Your task to perform on an android device: Go to Wikipedia Image 0: 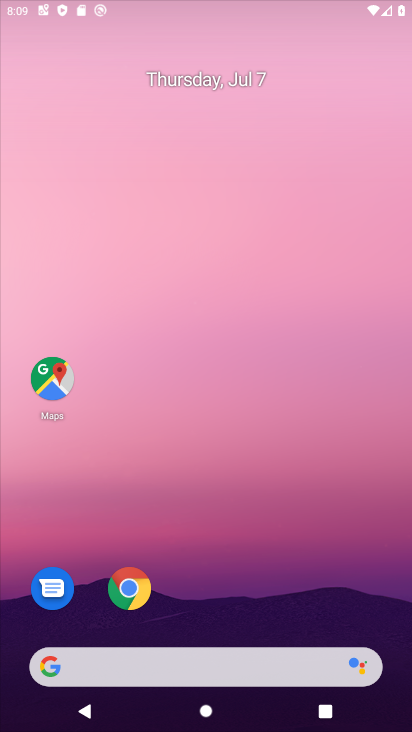
Step 0: drag from (200, 508) to (214, 379)
Your task to perform on an android device: Go to Wikipedia Image 1: 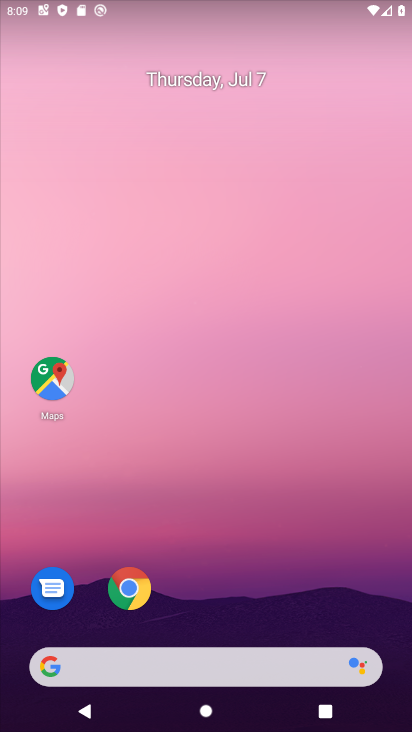
Step 1: drag from (242, 585) to (255, 69)
Your task to perform on an android device: Go to Wikipedia Image 2: 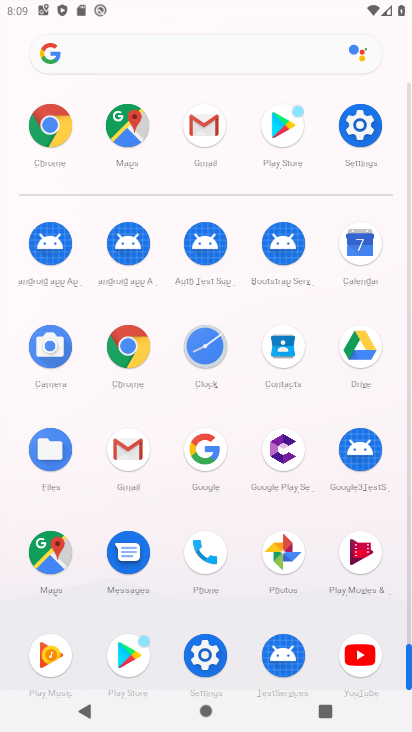
Step 2: click (52, 129)
Your task to perform on an android device: Go to Wikipedia Image 3: 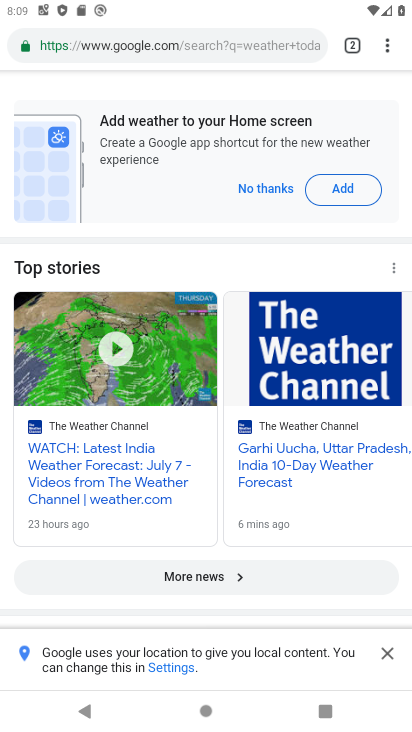
Step 3: drag from (146, 564) to (201, 168)
Your task to perform on an android device: Go to Wikipedia Image 4: 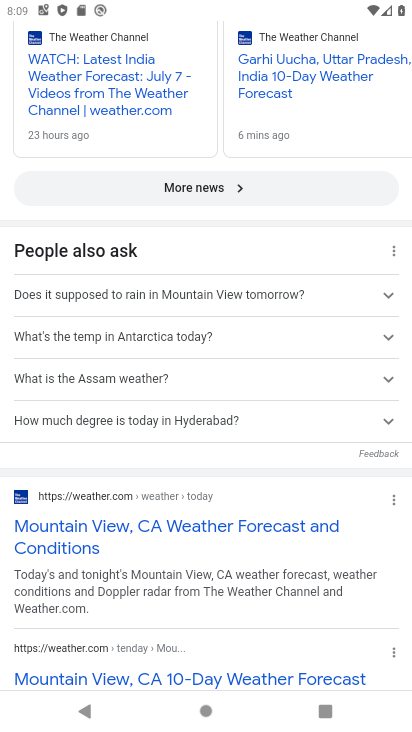
Step 4: drag from (240, 177) to (225, 722)
Your task to perform on an android device: Go to Wikipedia Image 5: 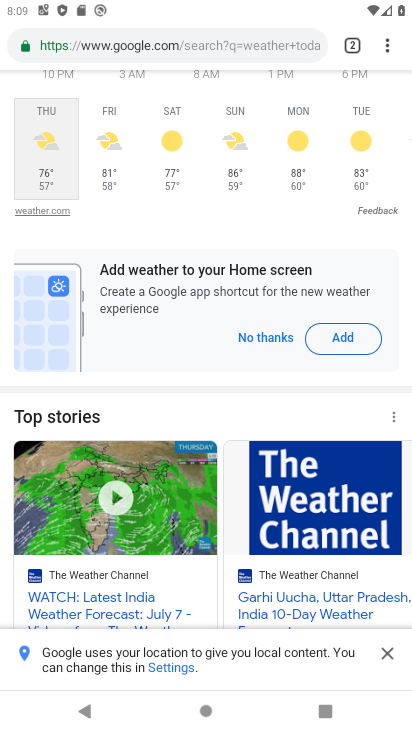
Step 5: drag from (218, 201) to (320, 8)
Your task to perform on an android device: Go to Wikipedia Image 6: 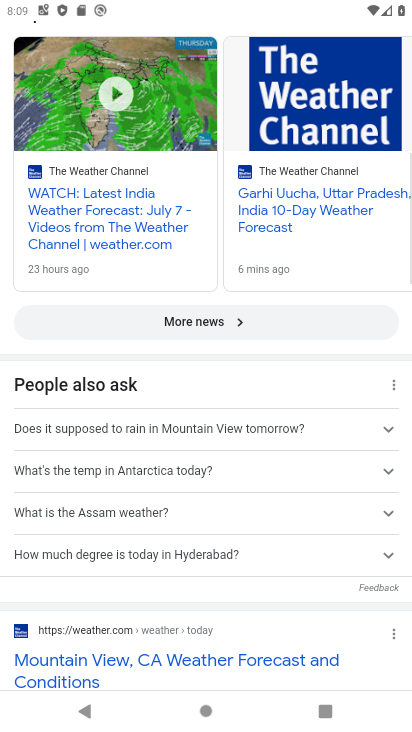
Step 6: click (353, 48)
Your task to perform on an android device: Go to Wikipedia Image 7: 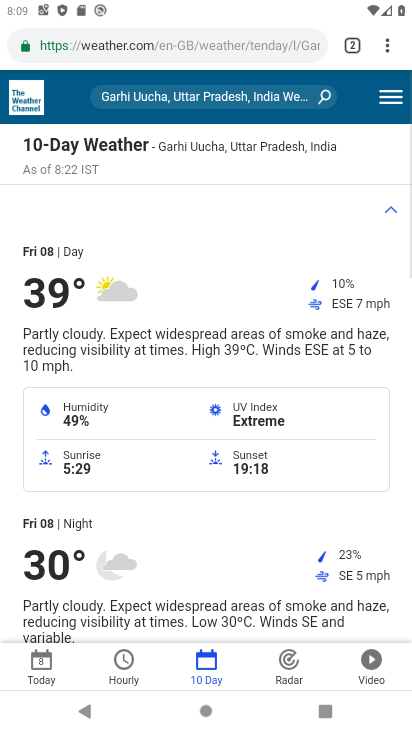
Step 7: click (350, 43)
Your task to perform on an android device: Go to Wikipedia Image 8: 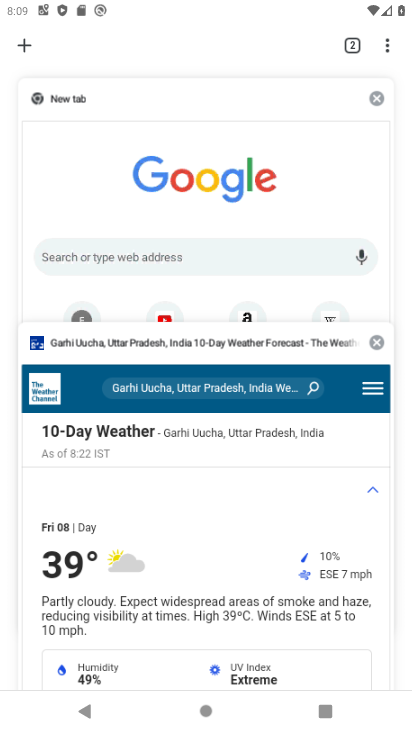
Step 8: click (127, 162)
Your task to perform on an android device: Go to Wikipedia Image 9: 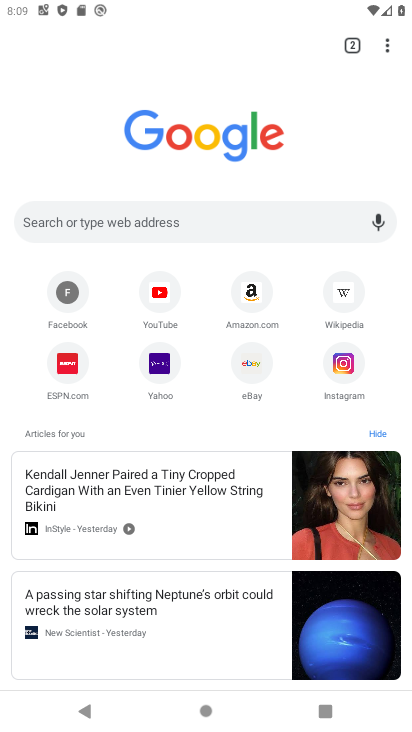
Step 9: click (346, 296)
Your task to perform on an android device: Go to Wikipedia Image 10: 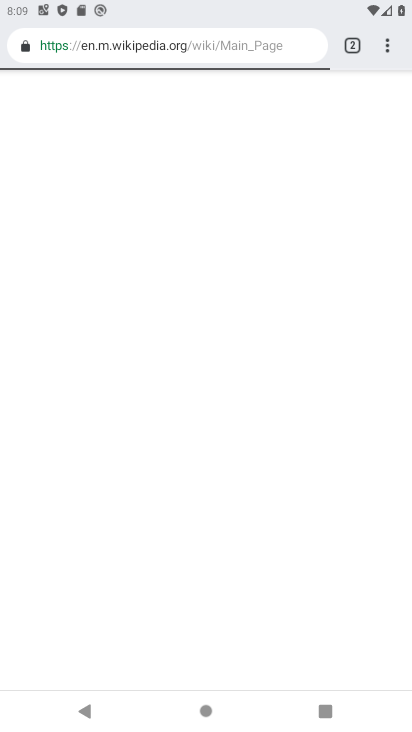
Step 10: task complete